Your task to perform on an android device: Search for sushi restaurants on Maps Image 0: 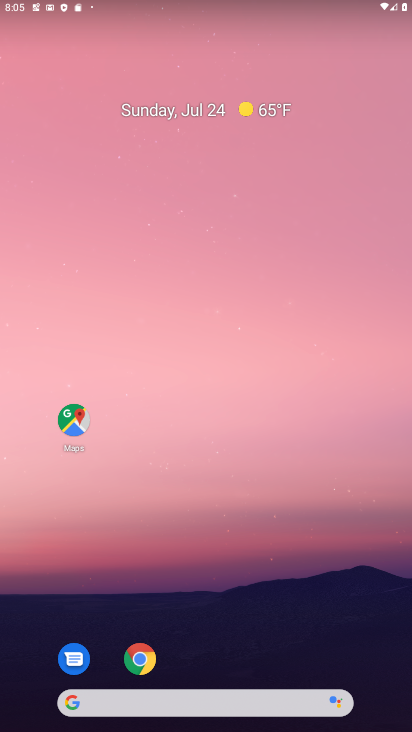
Step 0: click (73, 421)
Your task to perform on an android device: Search for sushi restaurants on Maps Image 1: 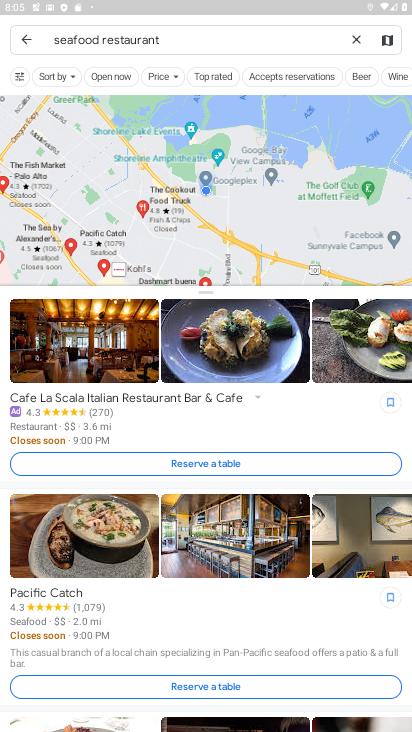
Step 1: click (358, 40)
Your task to perform on an android device: Search for sushi restaurants on Maps Image 2: 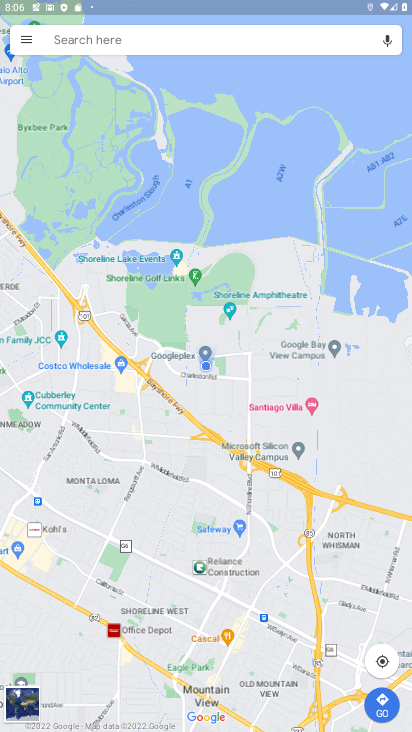
Step 2: type "sushi restaurants"
Your task to perform on an android device: Search for sushi restaurants on Maps Image 3: 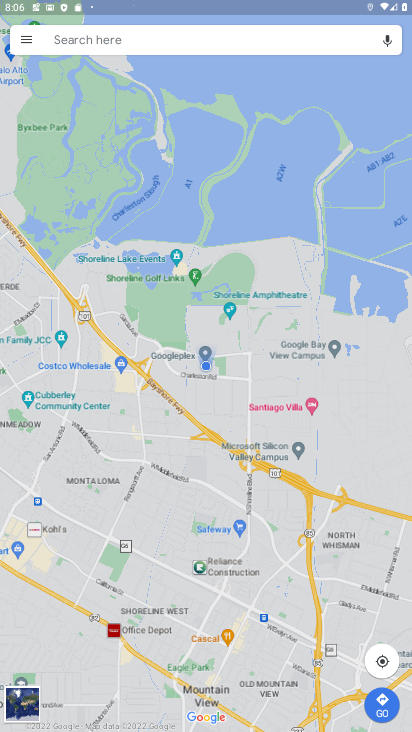
Step 3: click (113, 31)
Your task to perform on an android device: Search for sushi restaurants on Maps Image 4: 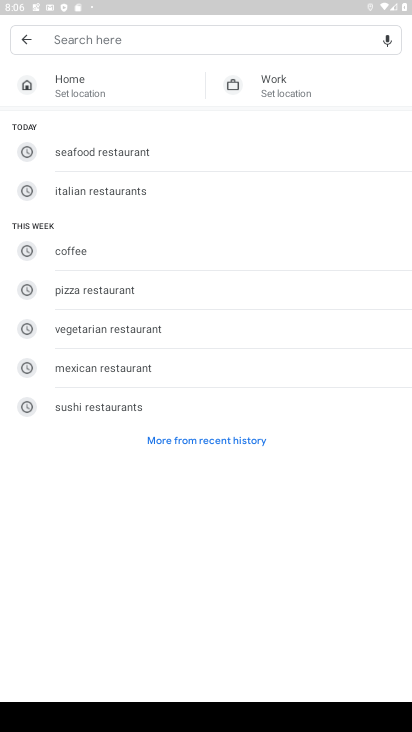
Step 4: type "sushi restaurants"
Your task to perform on an android device: Search for sushi restaurants on Maps Image 5: 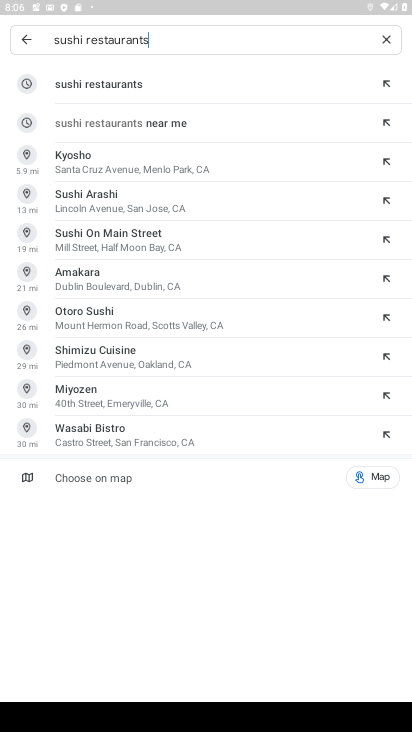
Step 5: click (79, 91)
Your task to perform on an android device: Search for sushi restaurants on Maps Image 6: 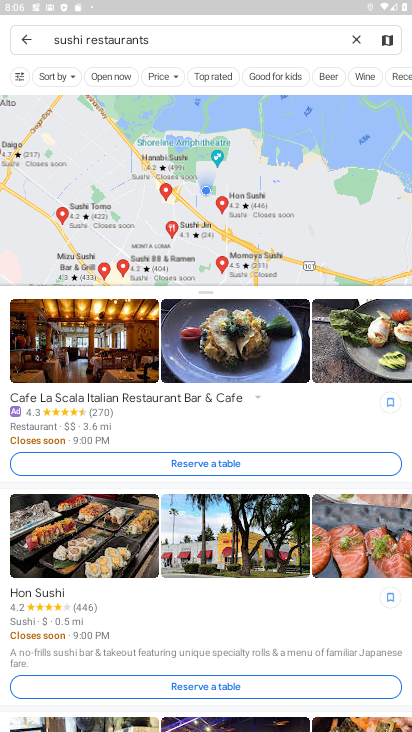
Step 6: task complete